Your task to perform on an android device: find snoozed emails in the gmail app Image 0: 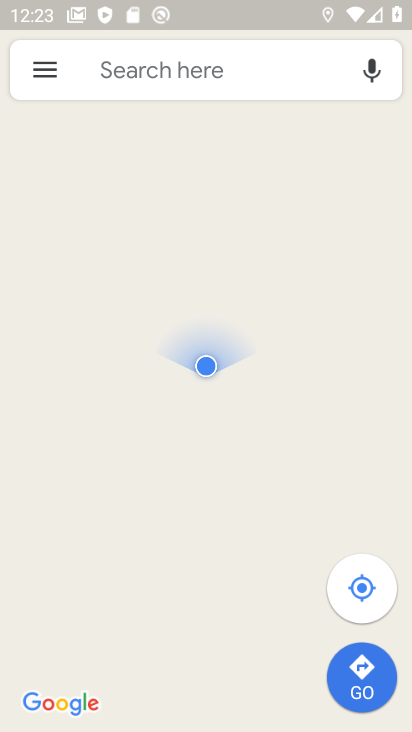
Step 0: press home button
Your task to perform on an android device: find snoozed emails in the gmail app Image 1: 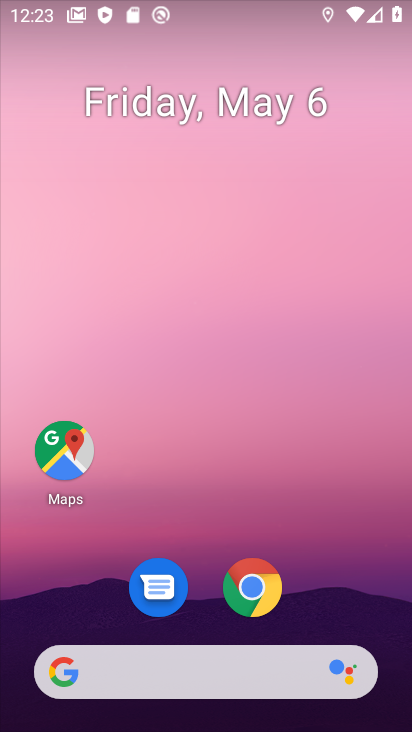
Step 1: drag from (253, 539) to (356, 19)
Your task to perform on an android device: find snoozed emails in the gmail app Image 2: 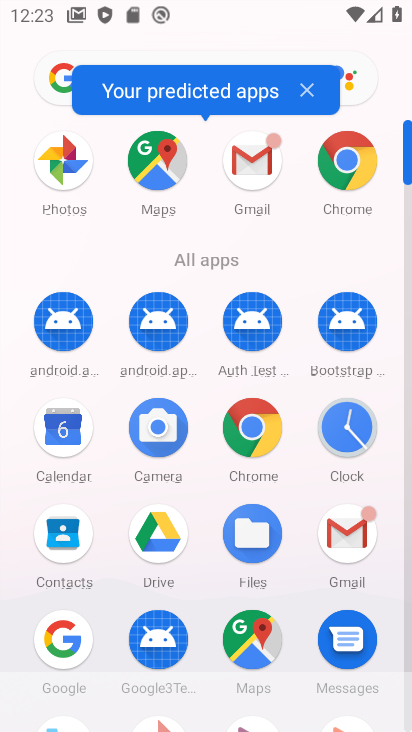
Step 2: click (340, 559)
Your task to perform on an android device: find snoozed emails in the gmail app Image 3: 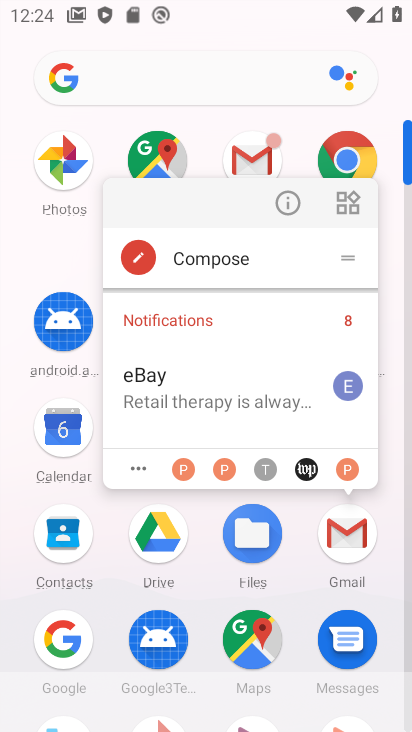
Step 3: click (342, 571)
Your task to perform on an android device: find snoozed emails in the gmail app Image 4: 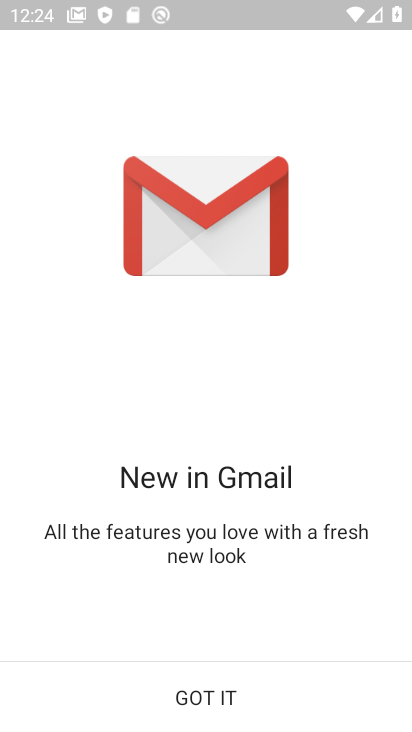
Step 4: click (240, 700)
Your task to perform on an android device: find snoozed emails in the gmail app Image 5: 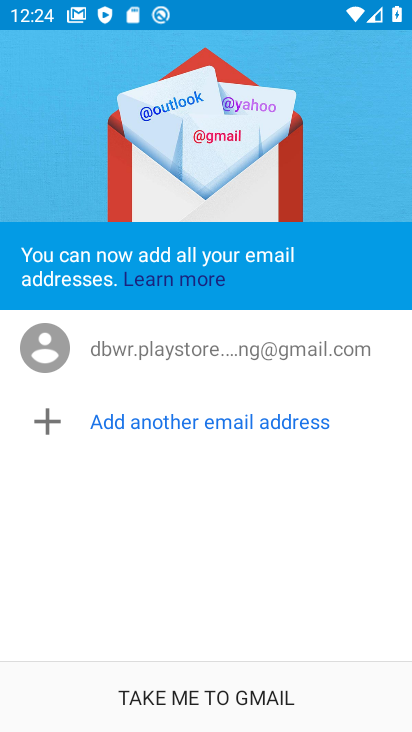
Step 5: click (239, 691)
Your task to perform on an android device: find snoozed emails in the gmail app Image 6: 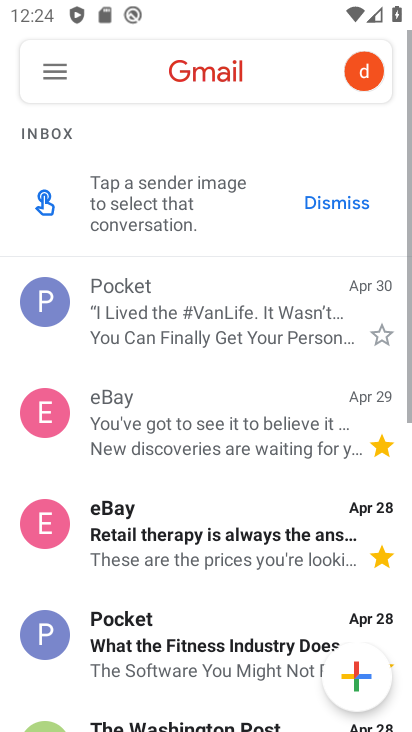
Step 6: click (55, 87)
Your task to perform on an android device: find snoozed emails in the gmail app Image 7: 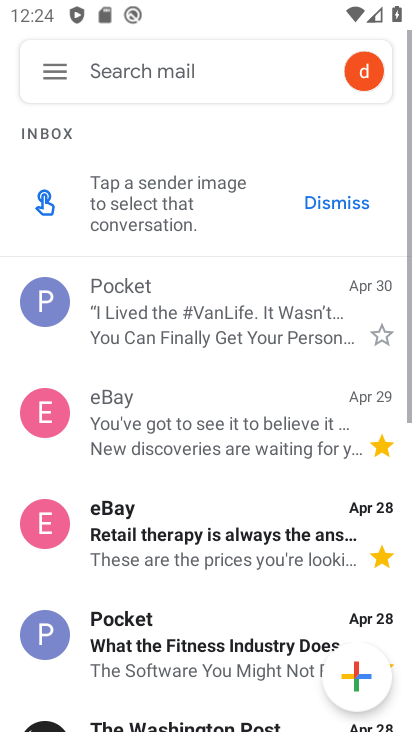
Step 7: click (40, 81)
Your task to perform on an android device: find snoozed emails in the gmail app Image 8: 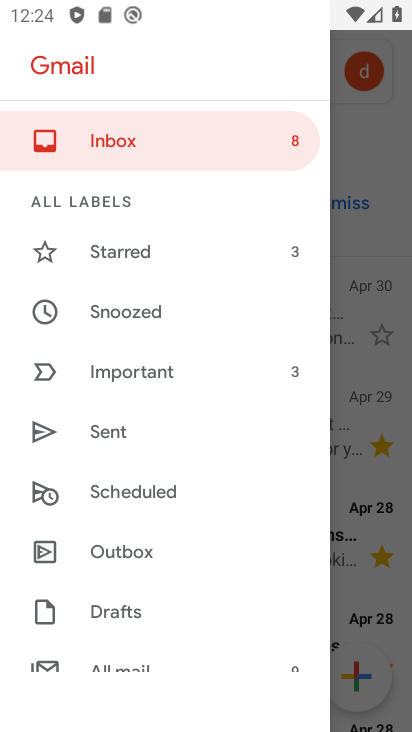
Step 8: drag from (105, 575) to (151, 163)
Your task to perform on an android device: find snoozed emails in the gmail app Image 9: 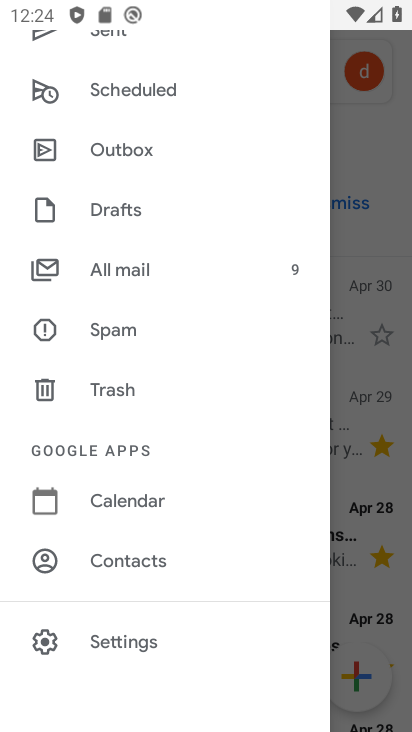
Step 9: drag from (144, 285) to (116, 628)
Your task to perform on an android device: find snoozed emails in the gmail app Image 10: 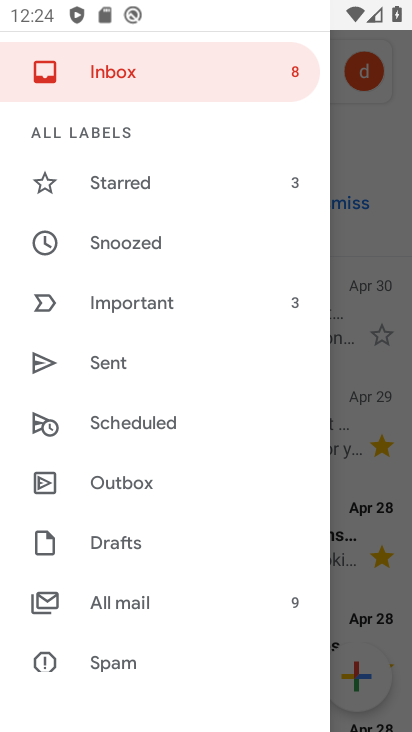
Step 10: click (139, 249)
Your task to perform on an android device: find snoozed emails in the gmail app Image 11: 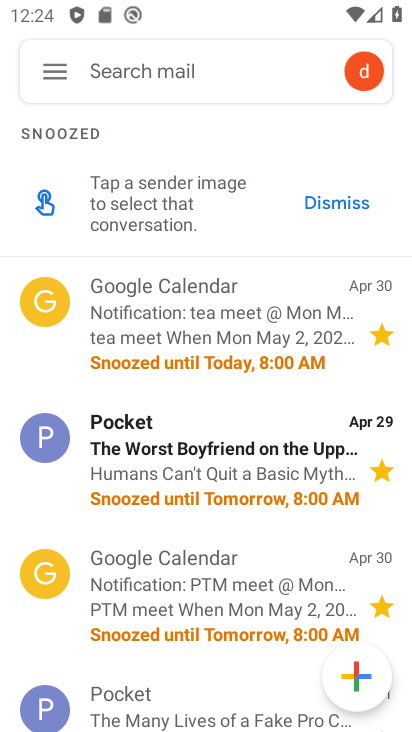
Step 11: task complete